Your task to perform on an android device: open device folders in google photos Image 0: 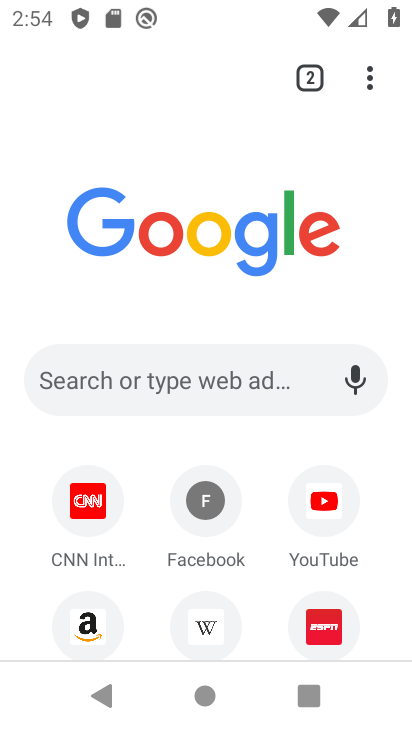
Step 0: press home button
Your task to perform on an android device: open device folders in google photos Image 1: 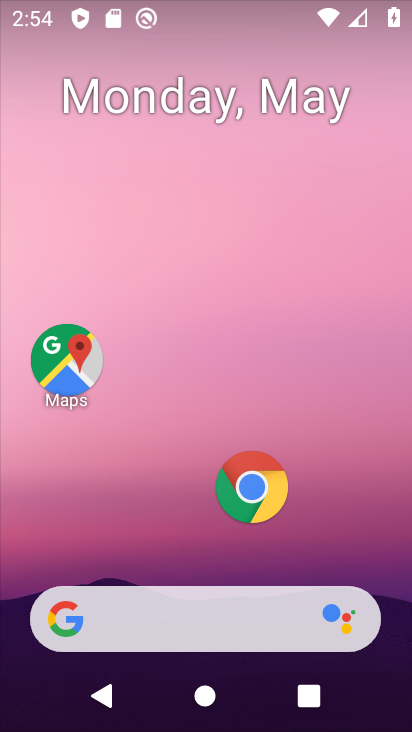
Step 1: drag from (166, 557) to (189, 3)
Your task to perform on an android device: open device folders in google photos Image 2: 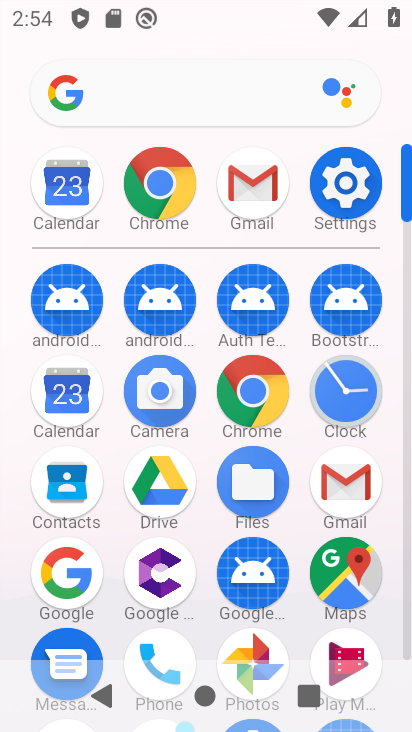
Step 2: click (245, 634)
Your task to perform on an android device: open device folders in google photos Image 3: 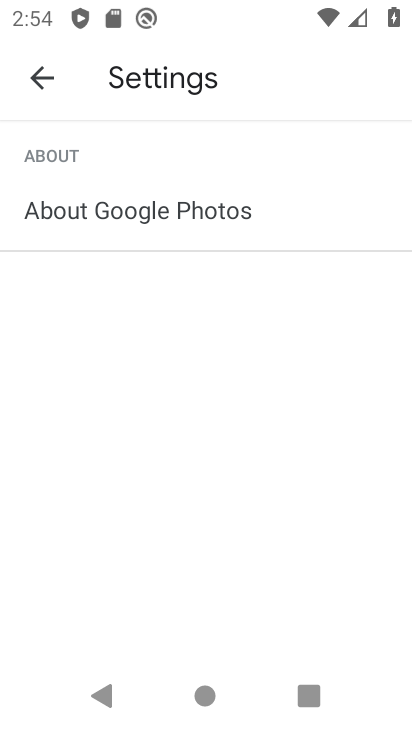
Step 3: click (36, 68)
Your task to perform on an android device: open device folders in google photos Image 4: 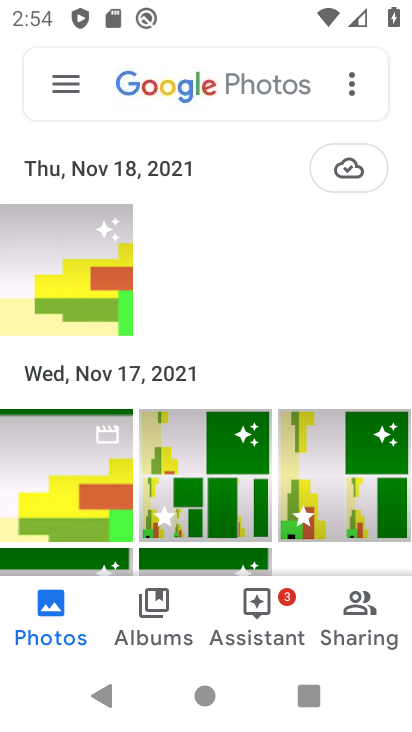
Step 4: click (52, 91)
Your task to perform on an android device: open device folders in google photos Image 5: 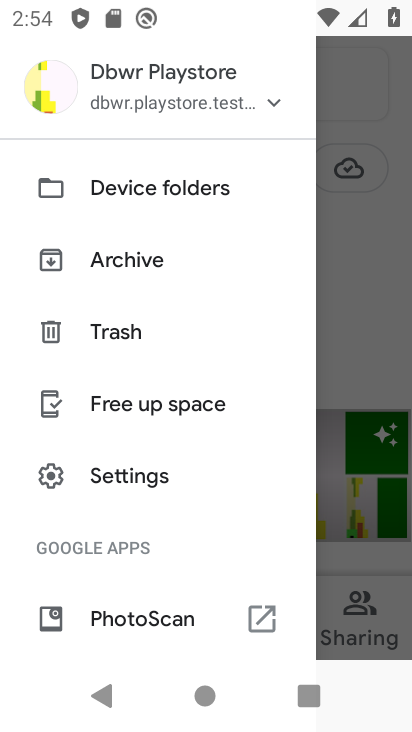
Step 5: click (138, 196)
Your task to perform on an android device: open device folders in google photos Image 6: 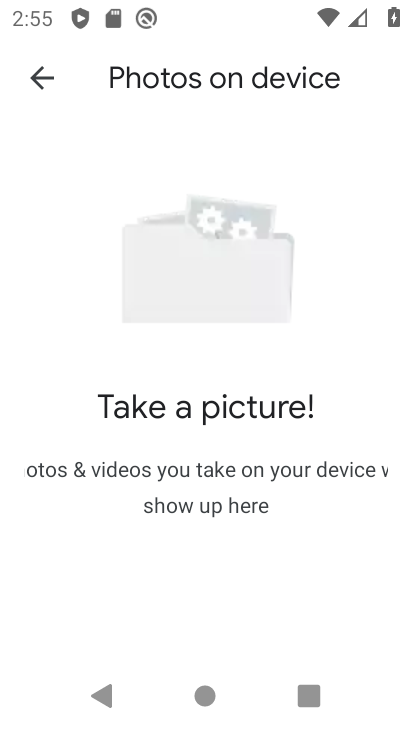
Step 6: task complete